Your task to perform on an android device: Open Youtube and go to the subscriptions tab Image 0: 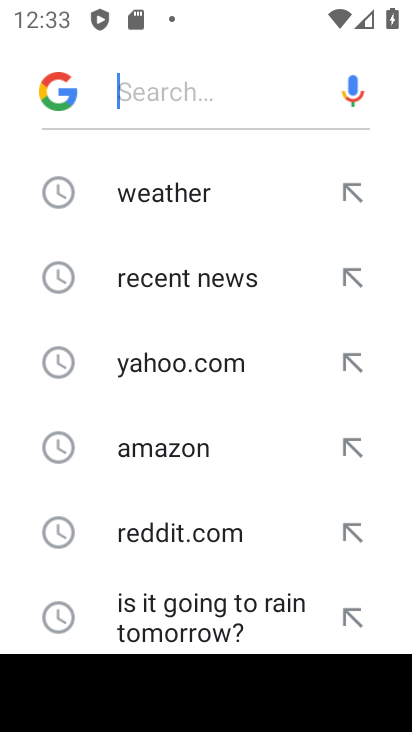
Step 0: press home button
Your task to perform on an android device: Open Youtube and go to the subscriptions tab Image 1: 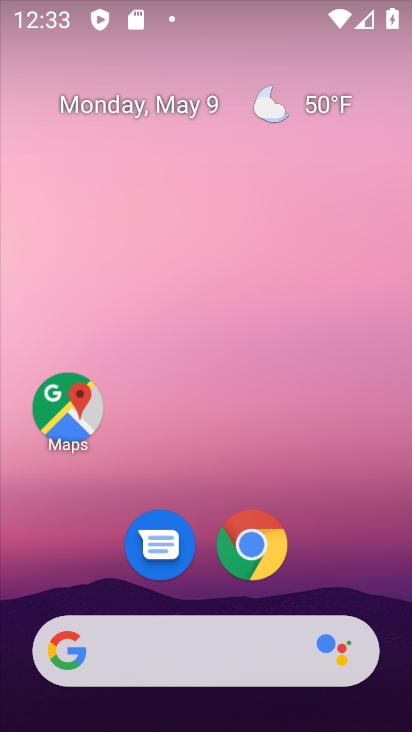
Step 1: drag from (202, 591) to (201, 170)
Your task to perform on an android device: Open Youtube and go to the subscriptions tab Image 2: 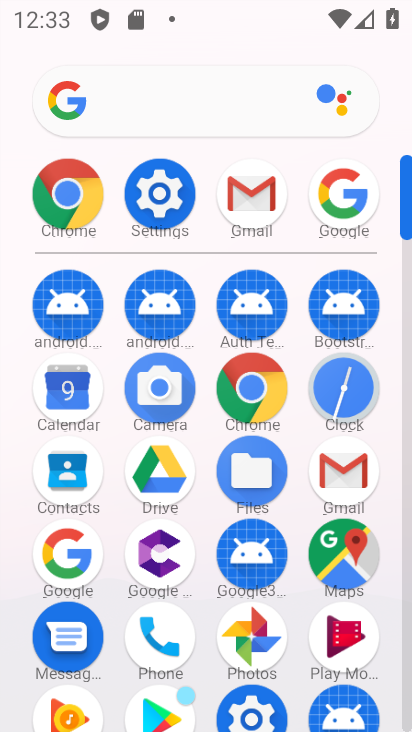
Step 2: drag from (201, 625) to (191, 328)
Your task to perform on an android device: Open Youtube and go to the subscriptions tab Image 3: 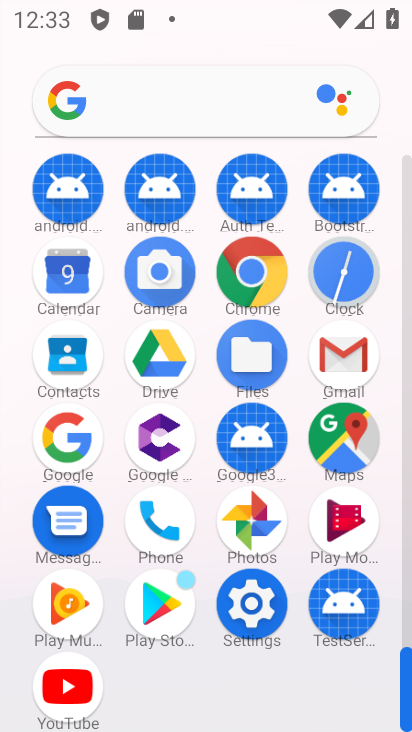
Step 3: click (58, 670)
Your task to perform on an android device: Open Youtube and go to the subscriptions tab Image 4: 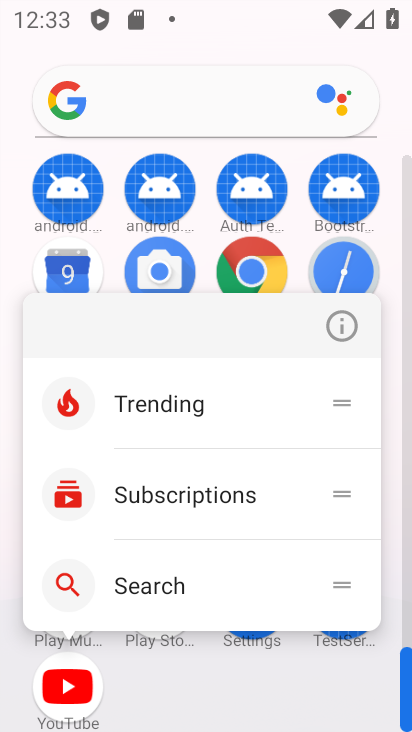
Step 4: click (87, 681)
Your task to perform on an android device: Open Youtube and go to the subscriptions tab Image 5: 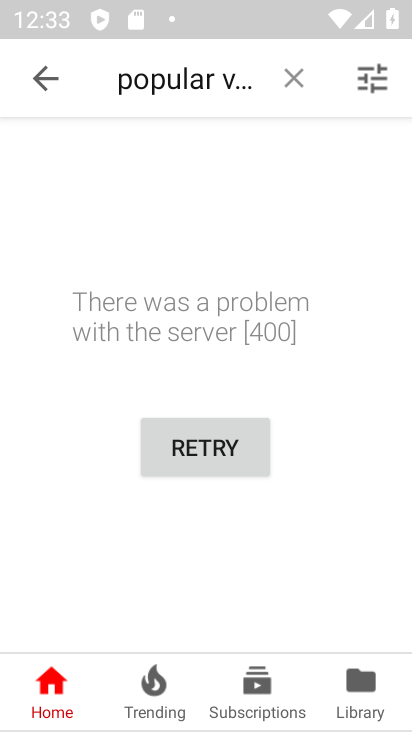
Step 5: click (236, 690)
Your task to perform on an android device: Open Youtube and go to the subscriptions tab Image 6: 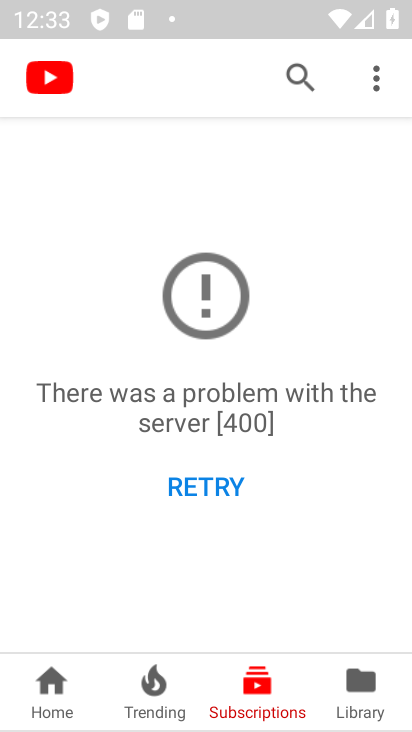
Step 6: task complete